Your task to perform on an android device: open a new tab in the chrome app Image 0: 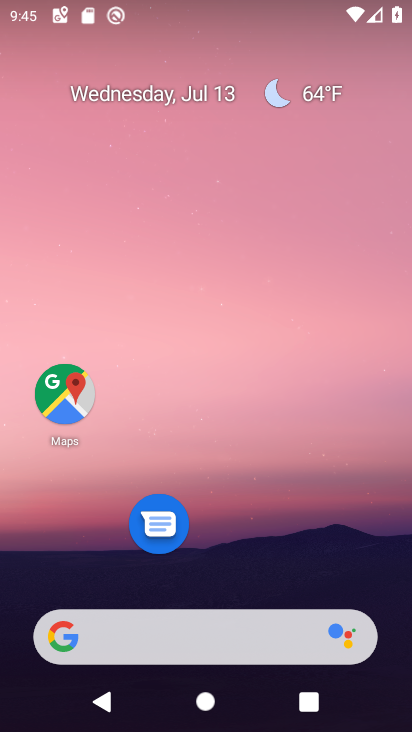
Step 0: drag from (285, 578) to (227, 200)
Your task to perform on an android device: open a new tab in the chrome app Image 1: 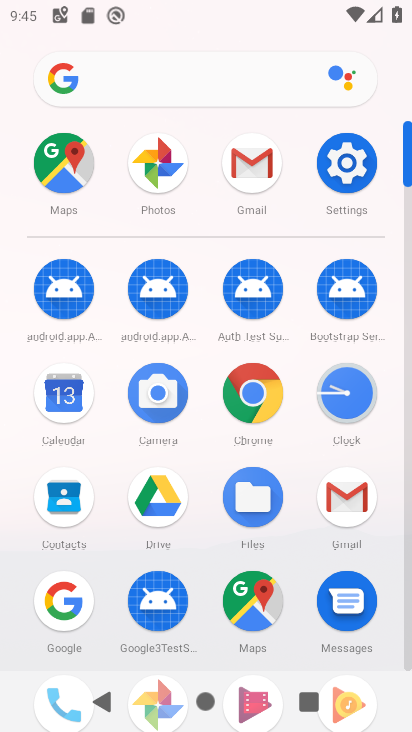
Step 1: click (259, 395)
Your task to perform on an android device: open a new tab in the chrome app Image 2: 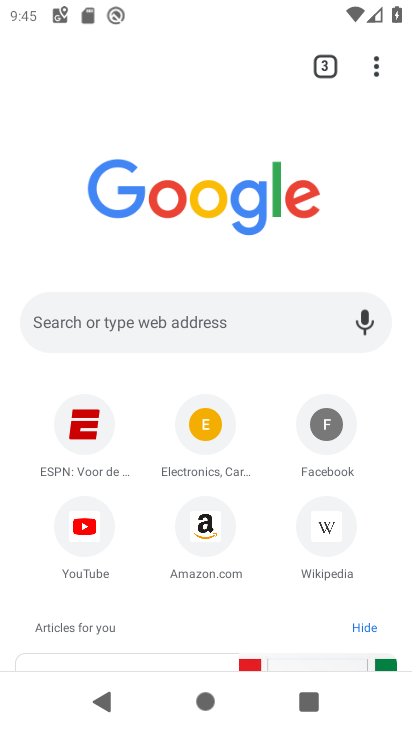
Step 2: click (316, 69)
Your task to perform on an android device: open a new tab in the chrome app Image 3: 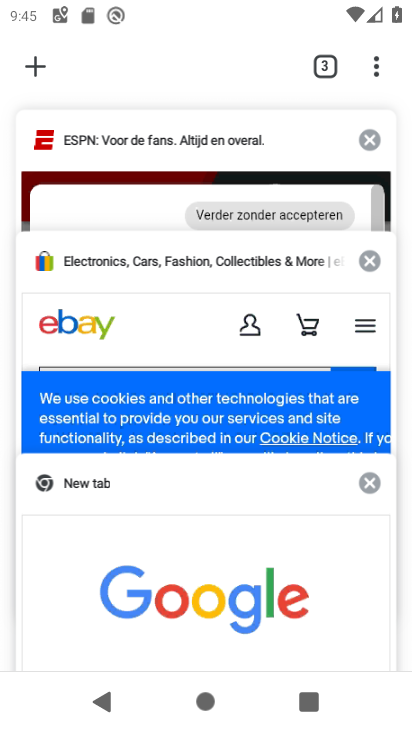
Step 3: click (32, 73)
Your task to perform on an android device: open a new tab in the chrome app Image 4: 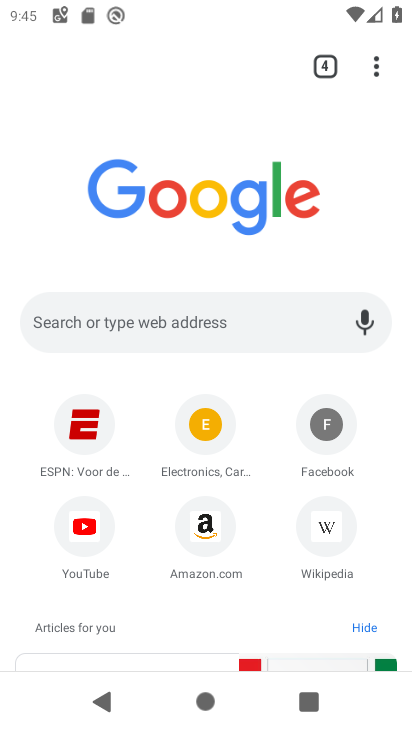
Step 4: task complete